Your task to perform on an android device: change notification settings in the gmail app Image 0: 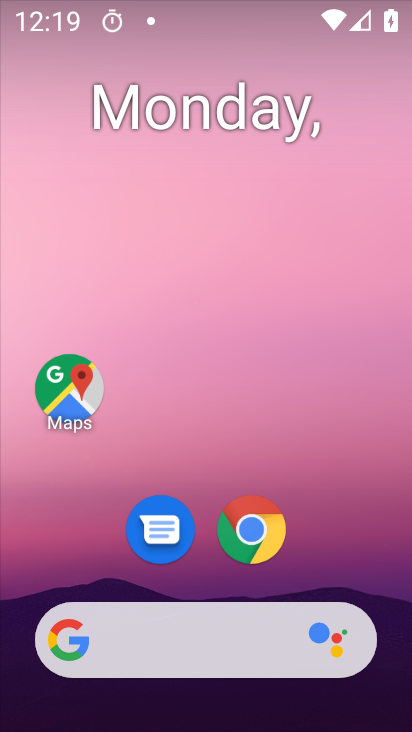
Step 0: drag from (187, 616) to (33, 49)
Your task to perform on an android device: change notification settings in the gmail app Image 1: 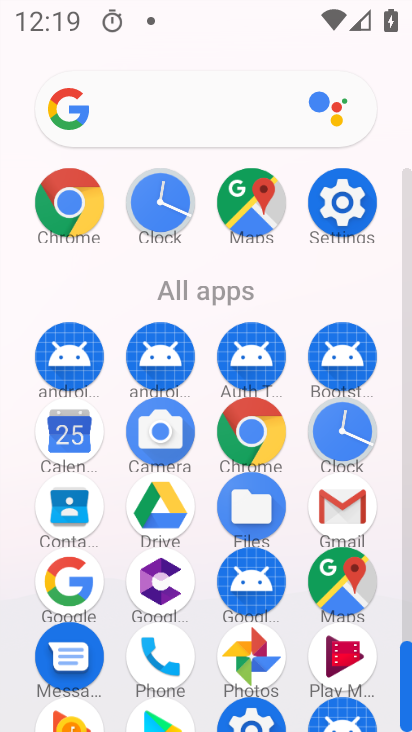
Step 1: click (351, 509)
Your task to perform on an android device: change notification settings in the gmail app Image 2: 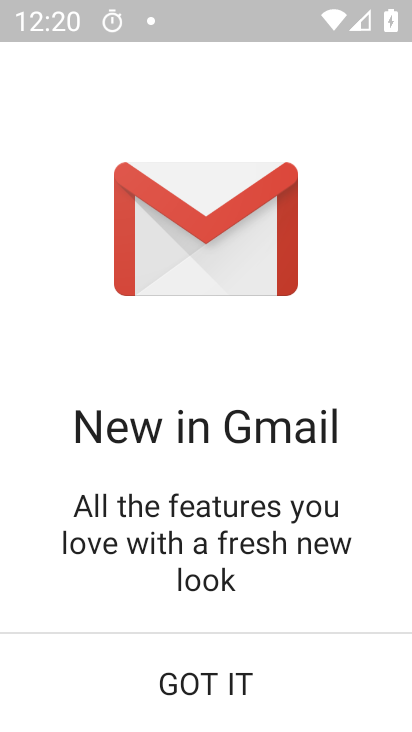
Step 2: click (278, 668)
Your task to perform on an android device: change notification settings in the gmail app Image 3: 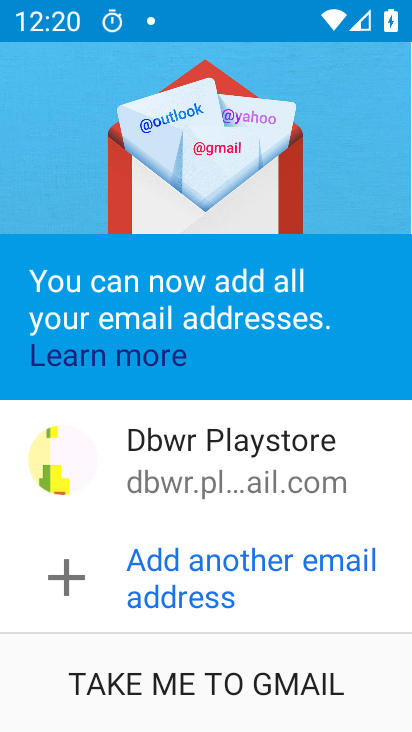
Step 3: click (278, 668)
Your task to perform on an android device: change notification settings in the gmail app Image 4: 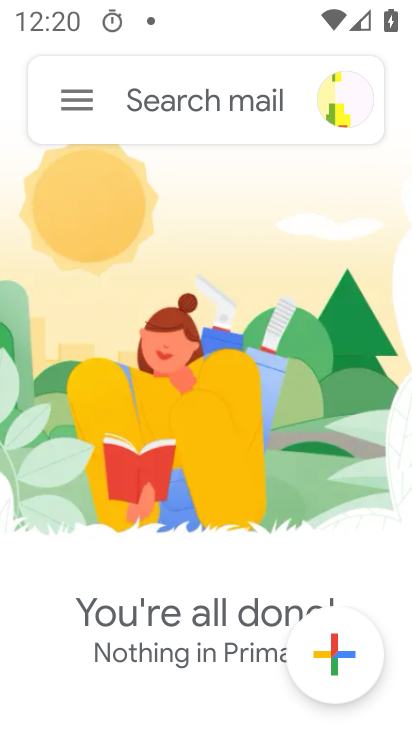
Step 4: click (59, 89)
Your task to perform on an android device: change notification settings in the gmail app Image 5: 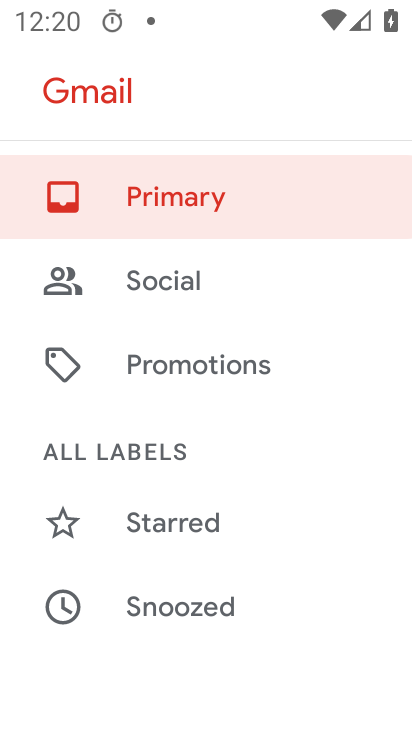
Step 5: drag from (229, 612) to (176, 11)
Your task to perform on an android device: change notification settings in the gmail app Image 6: 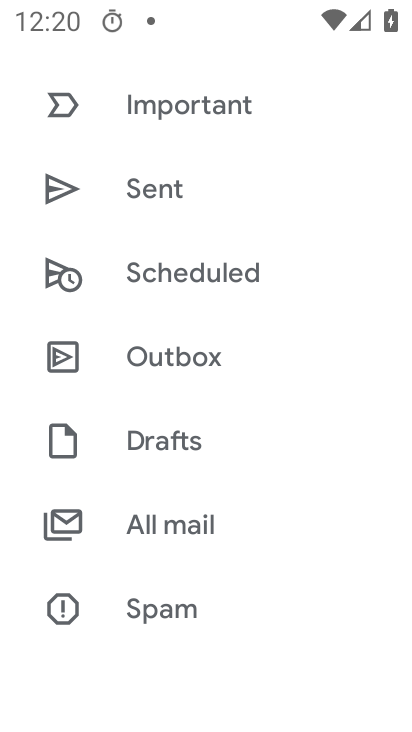
Step 6: drag from (191, 567) to (155, 36)
Your task to perform on an android device: change notification settings in the gmail app Image 7: 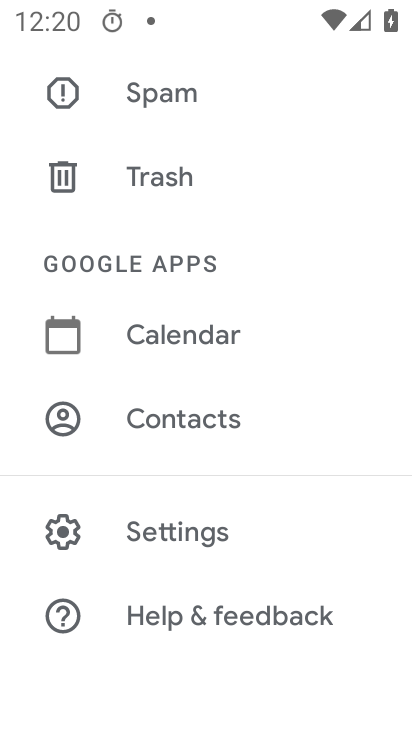
Step 7: click (173, 535)
Your task to perform on an android device: change notification settings in the gmail app Image 8: 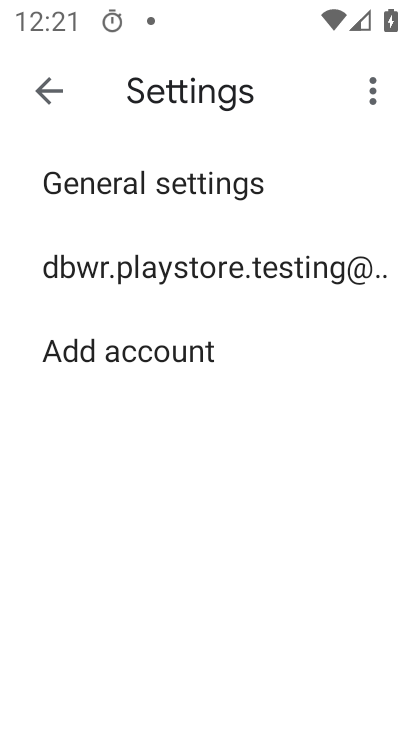
Step 8: click (218, 279)
Your task to perform on an android device: change notification settings in the gmail app Image 9: 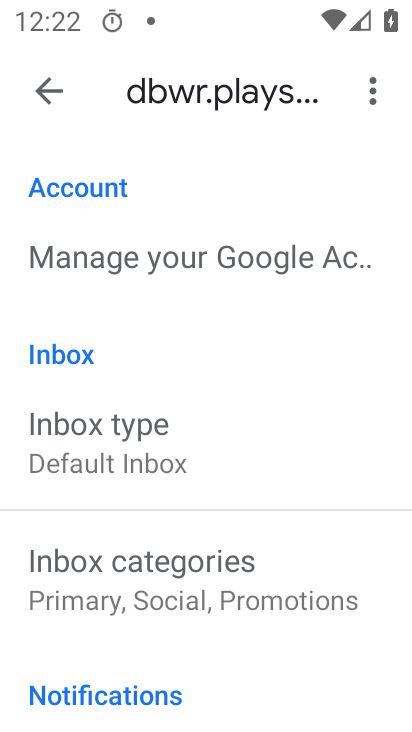
Step 9: drag from (143, 644) to (114, 79)
Your task to perform on an android device: change notification settings in the gmail app Image 10: 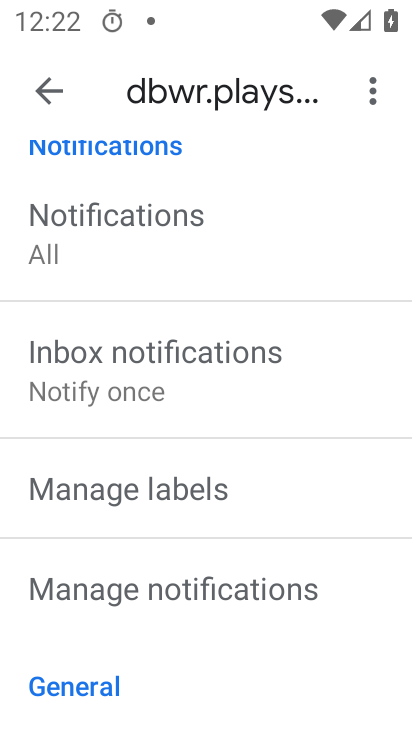
Step 10: click (127, 606)
Your task to perform on an android device: change notification settings in the gmail app Image 11: 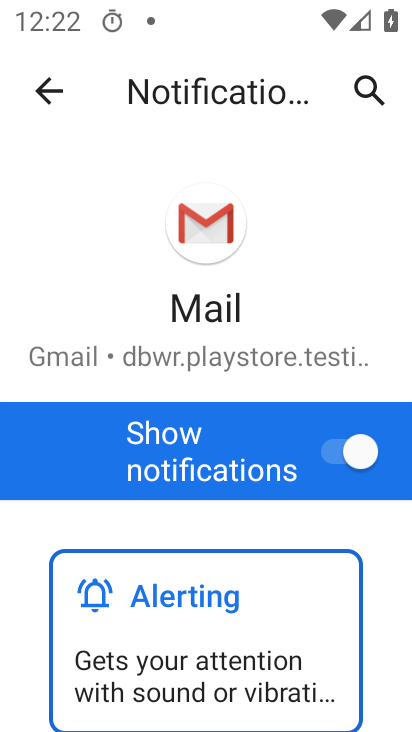
Step 11: drag from (165, 514) to (336, 28)
Your task to perform on an android device: change notification settings in the gmail app Image 12: 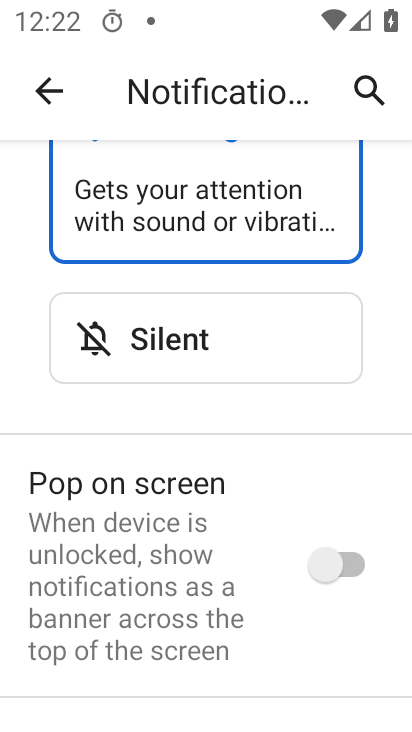
Step 12: drag from (262, 371) to (152, 717)
Your task to perform on an android device: change notification settings in the gmail app Image 13: 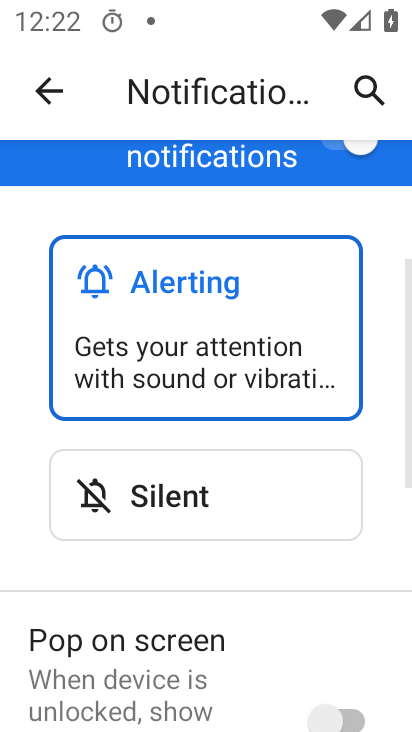
Step 13: click (345, 146)
Your task to perform on an android device: change notification settings in the gmail app Image 14: 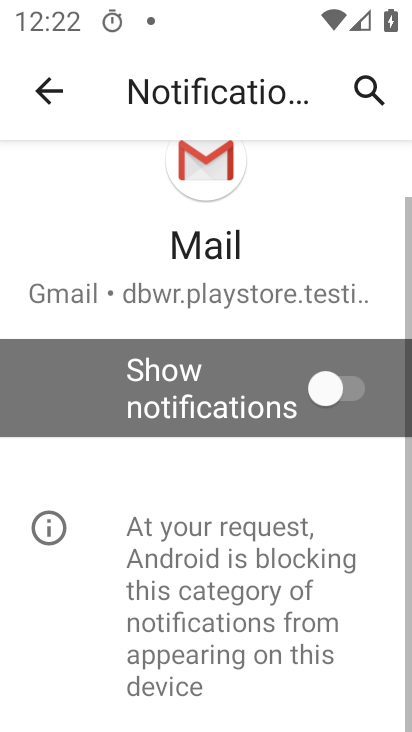
Step 14: task complete